Your task to perform on an android device: open a bookmark in the chrome app Image 0: 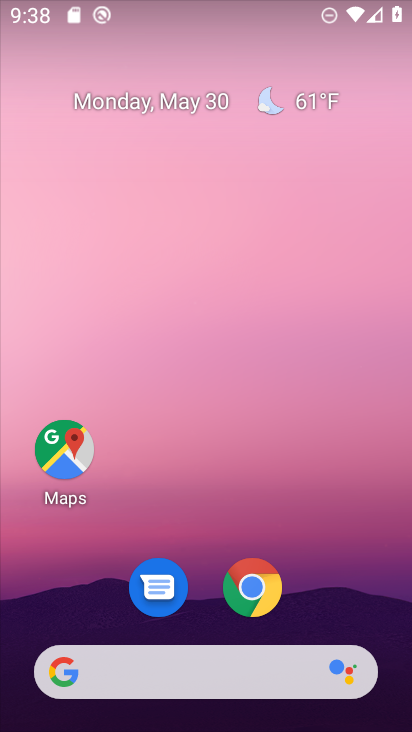
Step 0: click (248, 594)
Your task to perform on an android device: open a bookmark in the chrome app Image 1: 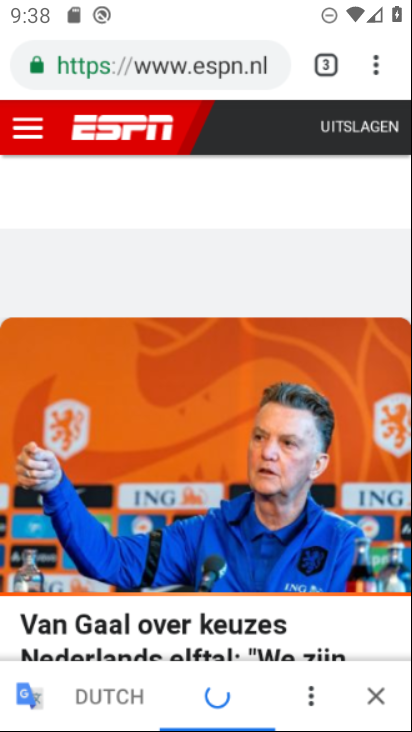
Step 1: click (374, 70)
Your task to perform on an android device: open a bookmark in the chrome app Image 2: 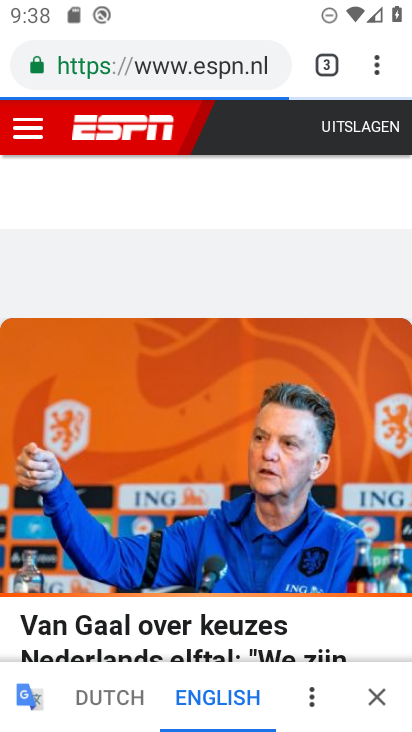
Step 2: task complete